Your task to perform on an android device: toggle priority inbox in the gmail app Image 0: 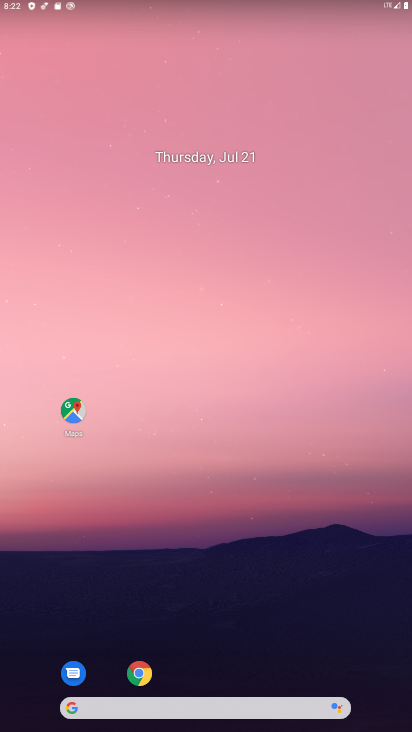
Step 0: drag from (197, 648) to (190, 249)
Your task to perform on an android device: toggle priority inbox in the gmail app Image 1: 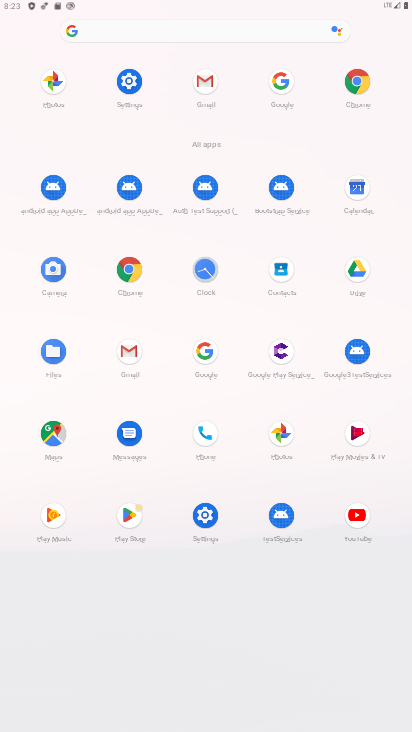
Step 1: click (219, 94)
Your task to perform on an android device: toggle priority inbox in the gmail app Image 2: 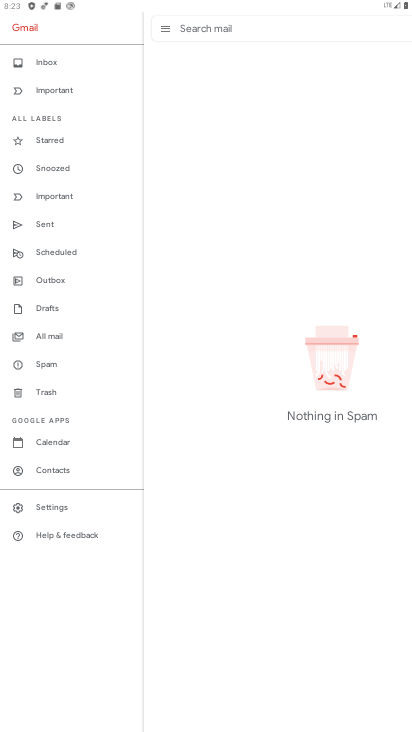
Step 2: click (68, 505)
Your task to perform on an android device: toggle priority inbox in the gmail app Image 3: 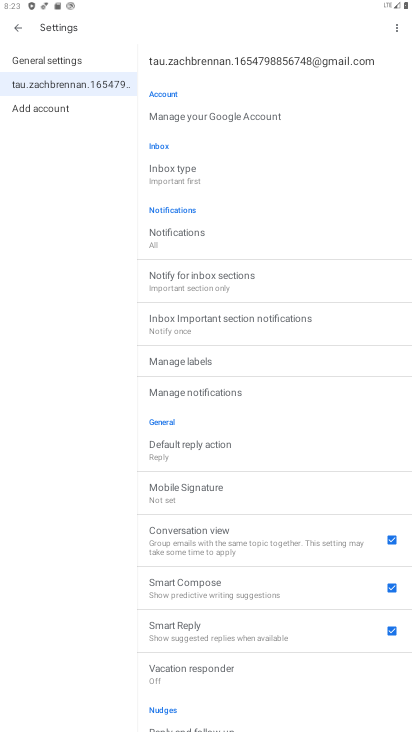
Step 3: click (210, 179)
Your task to perform on an android device: toggle priority inbox in the gmail app Image 4: 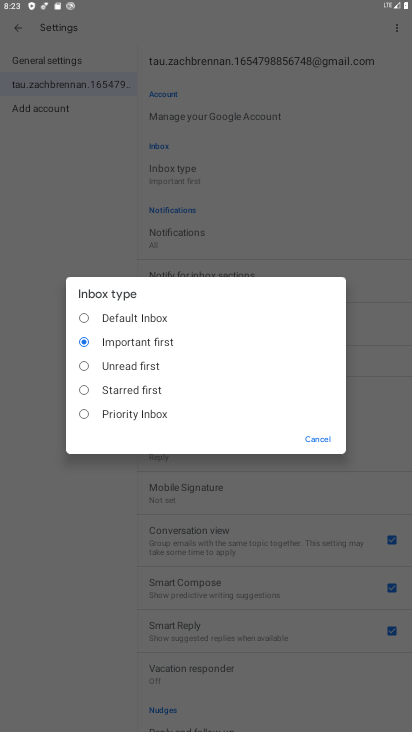
Step 4: click (134, 411)
Your task to perform on an android device: toggle priority inbox in the gmail app Image 5: 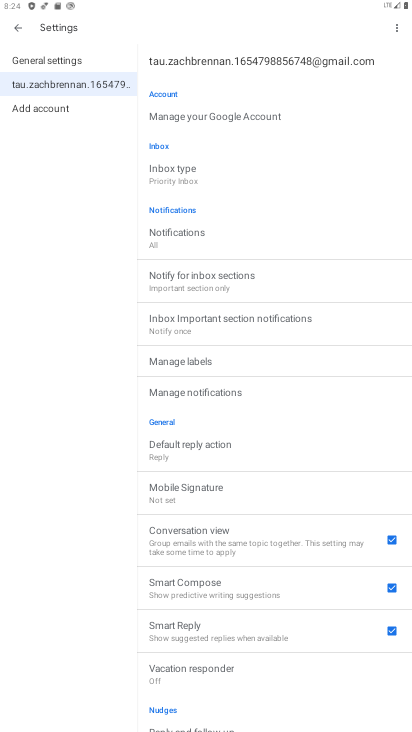
Step 5: task complete